Your task to perform on an android device: Is it going to rain tomorrow? Image 0: 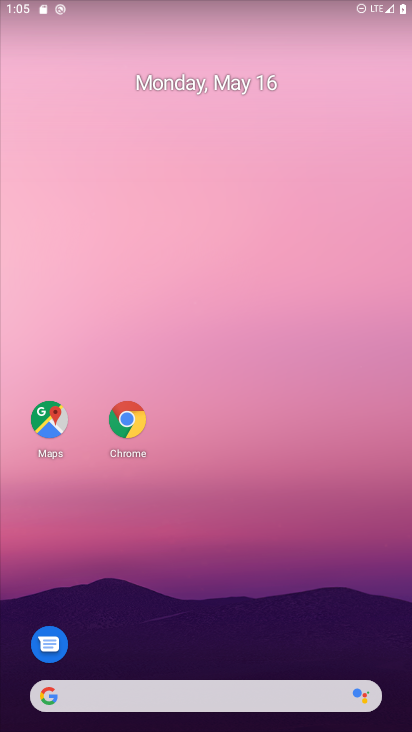
Step 0: drag from (232, 650) to (225, 318)
Your task to perform on an android device: Is it going to rain tomorrow? Image 1: 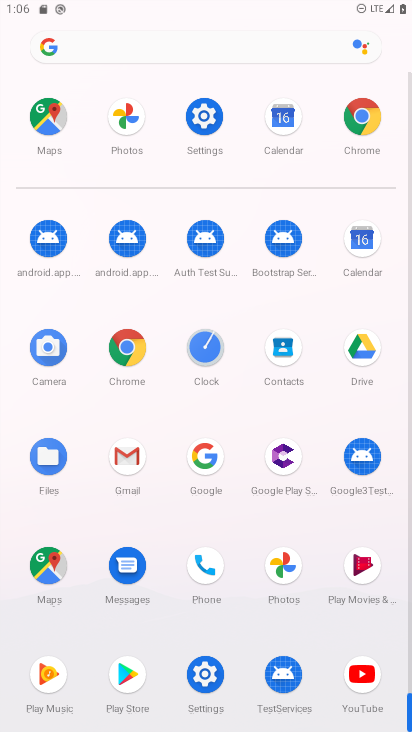
Step 1: click (215, 45)
Your task to perform on an android device: Is it going to rain tomorrow? Image 2: 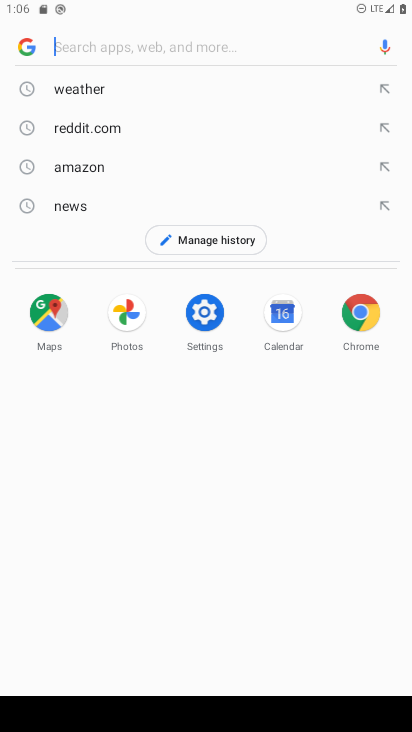
Step 2: type "rain tomorrow"
Your task to perform on an android device: Is it going to rain tomorrow? Image 3: 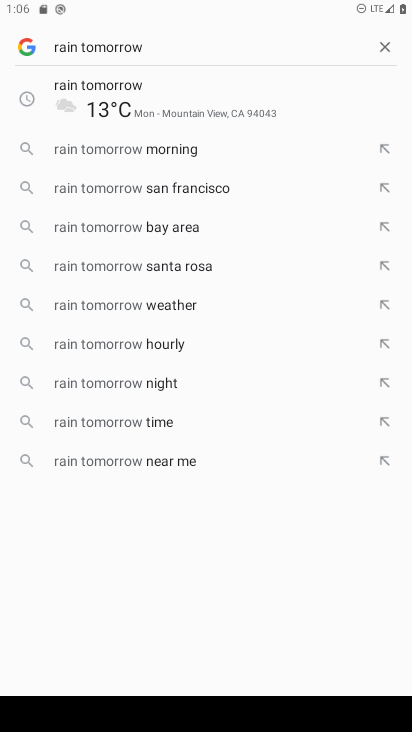
Step 3: click (170, 87)
Your task to perform on an android device: Is it going to rain tomorrow? Image 4: 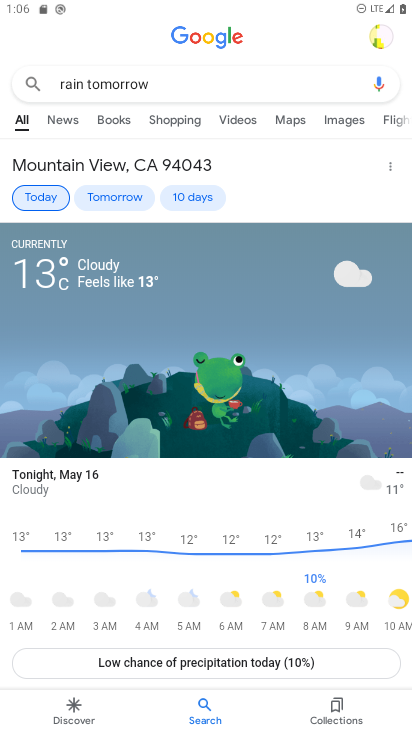
Step 4: task complete